Your task to perform on an android device: Open the calendar app, open the side menu, and click the "Day" option Image 0: 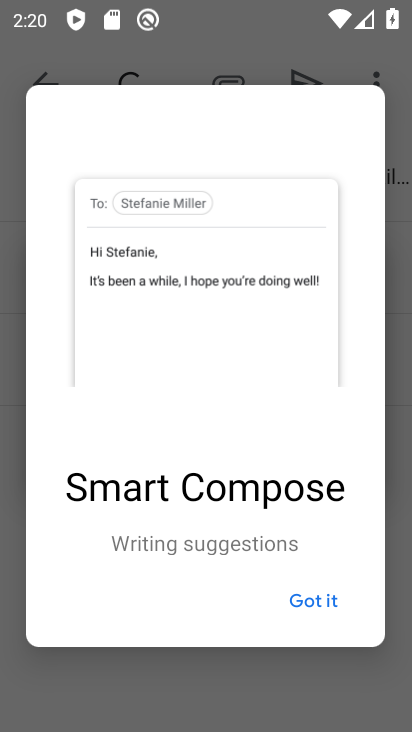
Step 0: press home button
Your task to perform on an android device: Open the calendar app, open the side menu, and click the "Day" option Image 1: 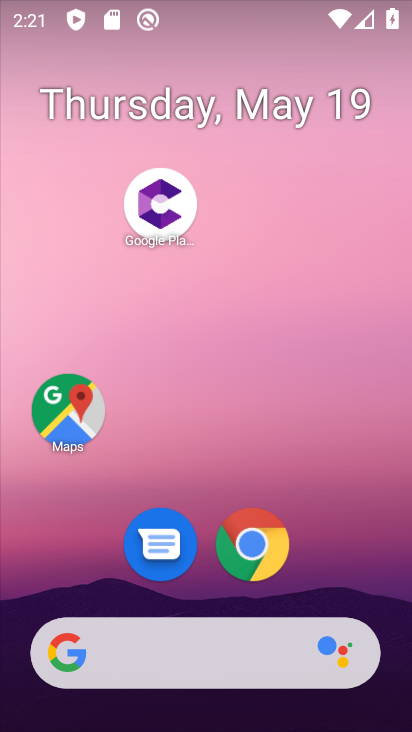
Step 1: press home button
Your task to perform on an android device: Open the calendar app, open the side menu, and click the "Day" option Image 2: 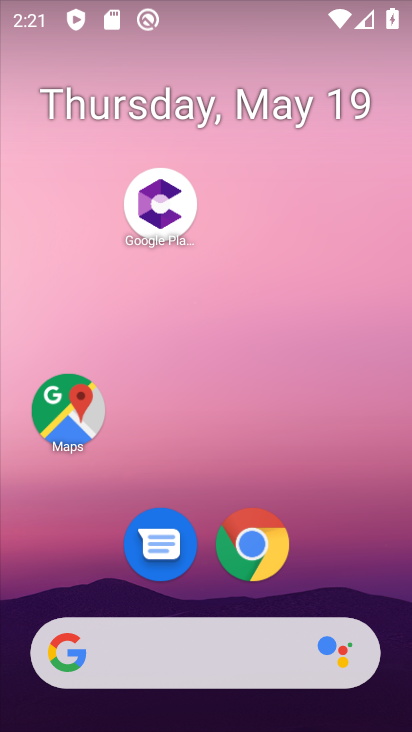
Step 2: drag from (226, 686) to (154, 267)
Your task to perform on an android device: Open the calendar app, open the side menu, and click the "Day" option Image 3: 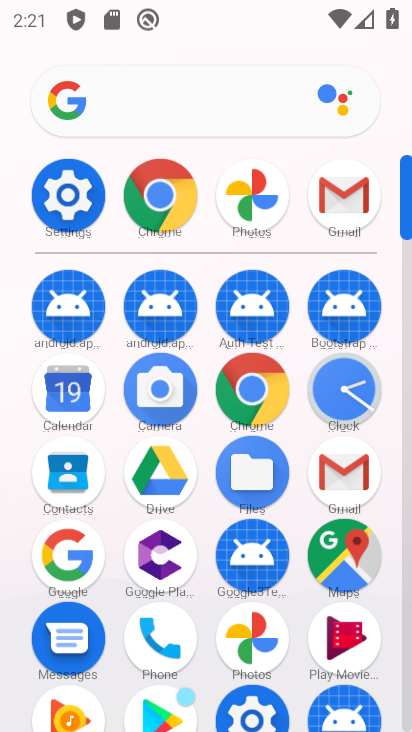
Step 3: click (80, 388)
Your task to perform on an android device: Open the calendar app, open the side menu, and click the "Day" option Image 4: 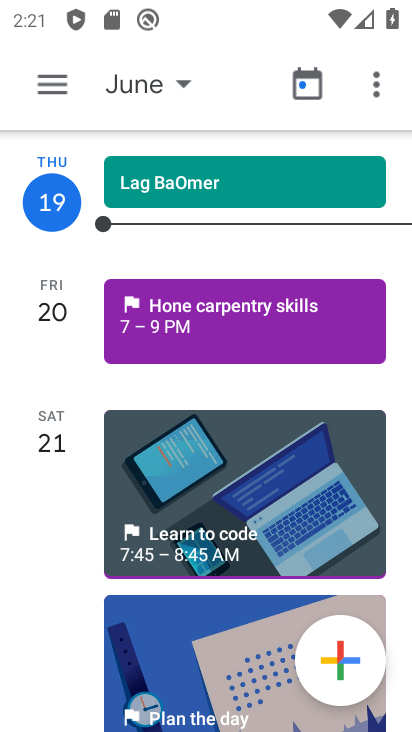
Step 4: click (39, 85)
Your task to perform on an android device: Open the calendar app, open the side menu, and click the "Day" option Image 5: 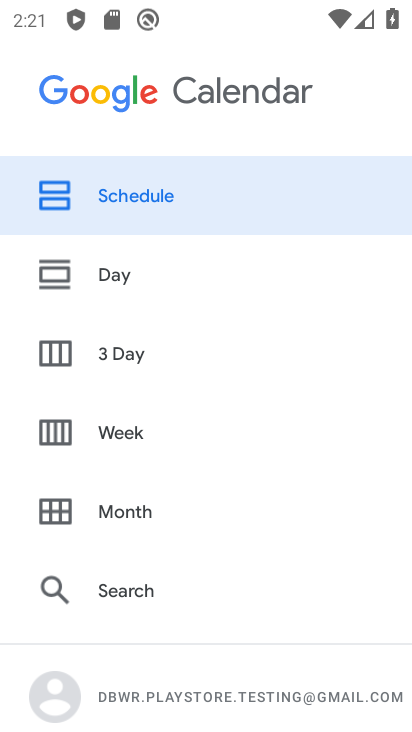
Step 5: click (117, 273)
Your task to perform on an android device: Open the calendar app, open the side menu, and click the "Day" option Image 6: 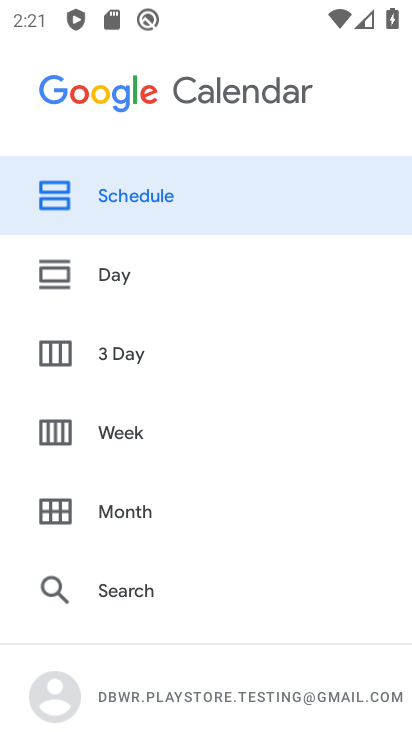
Step 6: click (119, 278)
Your task to perform on an android device: Open the calendar app, open the side menu, and click the "Day" option Image 7: 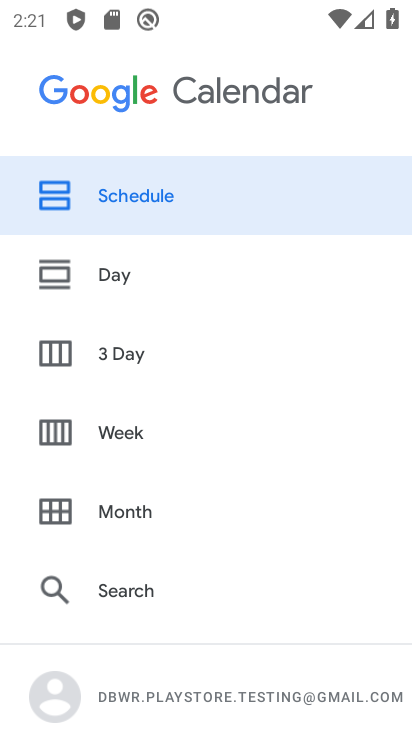
Step 7: click (115, 279)
Your task to perform on an android device: Open the calendar app, open the side menu, and click the "Day" option Image 8: 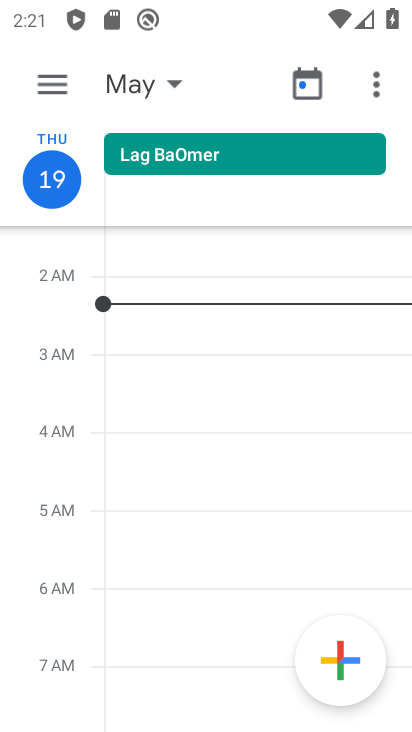
Step 8: task complete